Your task to perform on an android device: check the backup settings in the google photos Image 0: 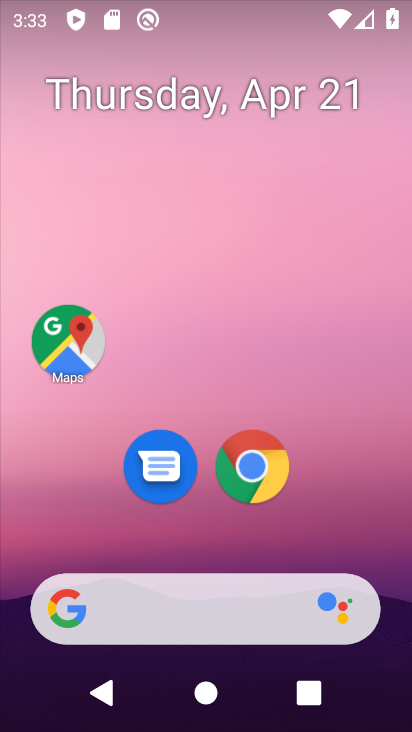
Step 0: drag from (218, 515) to (222, 179)
Your task to perform on an android device: check the backup settings in the google photos Image 1: 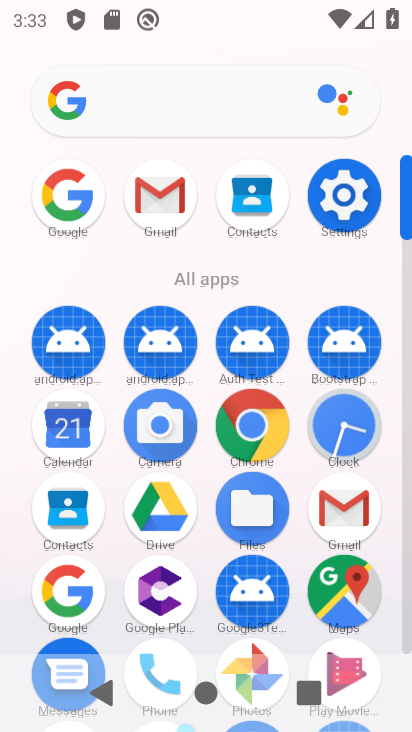
Step 1: drag from (116, 546) to (122, 266)
Your task to perform on an android device: check the backup settings in the google photos Image 2: 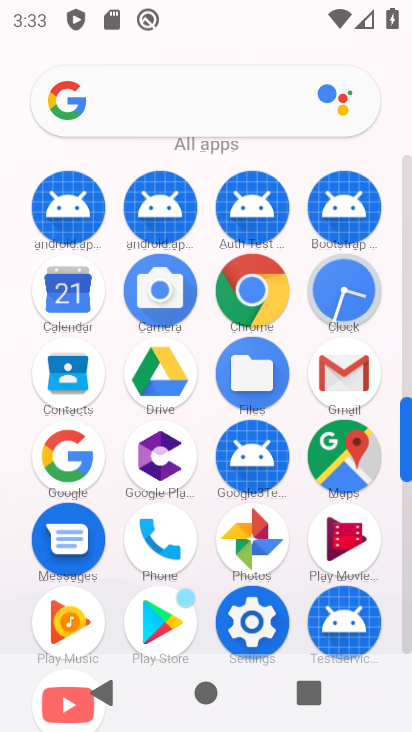
Step 2: click (238, 532)
Your task to perform on an android device: check the backup settings in the google photos Image 3: 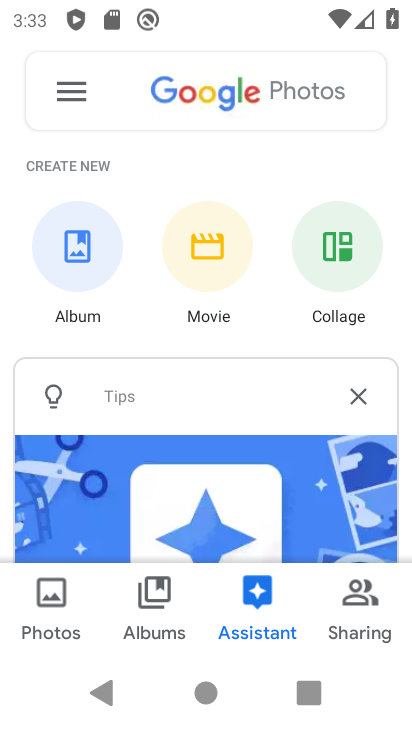
Step 3: click (68, 97)
Your task to perform on an android device: check the backup settings in the google photos Image 4: 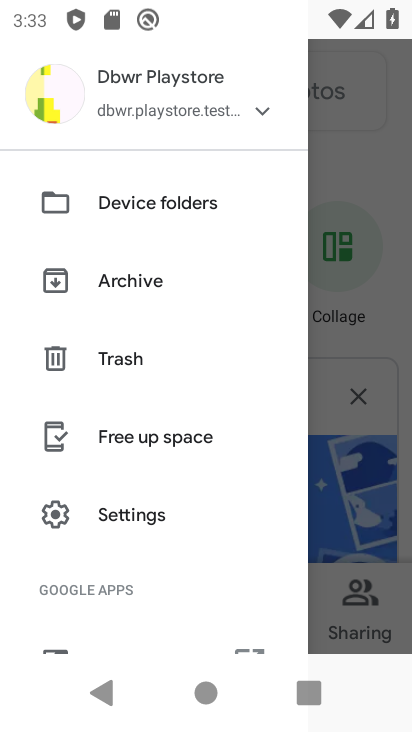
Step 4: drag from (146, 579) to (177, 381)
Your task to perform on an android device: check the backup settings in the google photos Image 5: 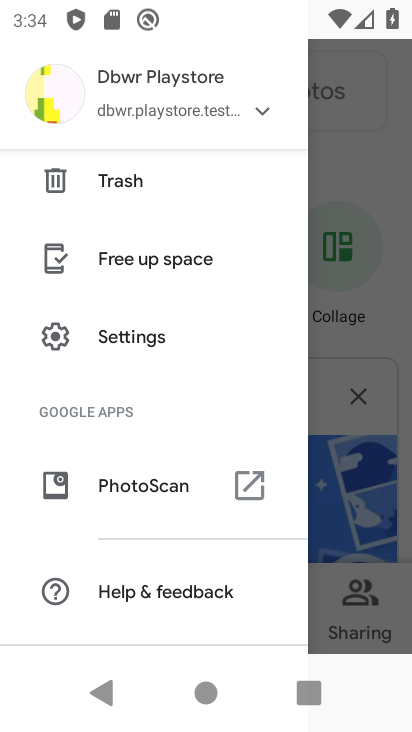
Step 5: click (113, 340)
Your task to perform on an android device: check the backup settings in the google photos Image 6: 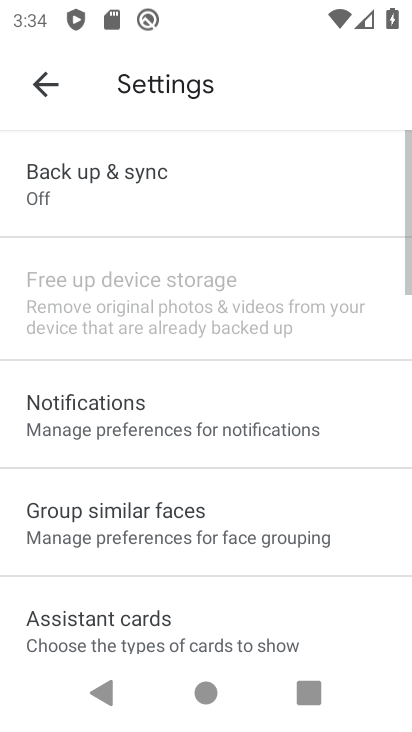
Step 6: drag from (140, 198) to (182, 616)
Your task to perform on an android device: check the backup settings in the google photos Image 7: 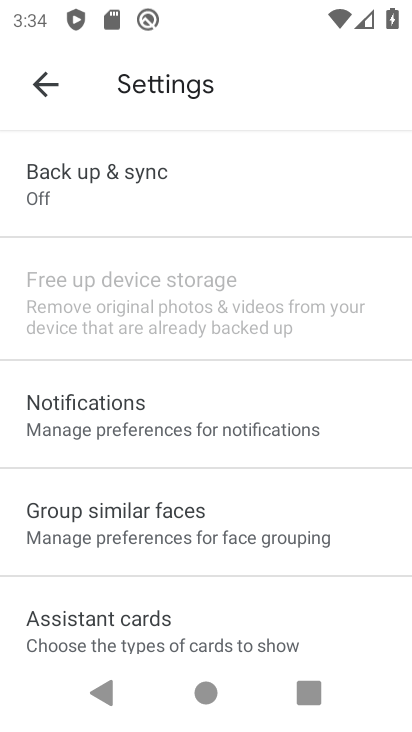
Step 7: click (145, 201)
Your task to perform on an android device: check the backup settings in the google photos Image 8: 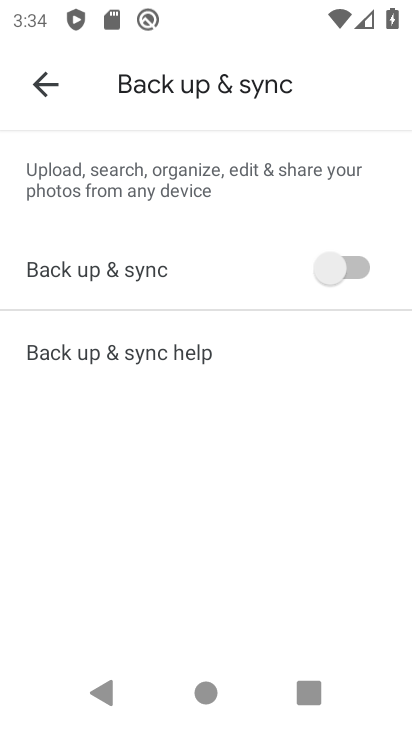
Step 8: task complete